Your task to perform on an android device: Show me the alarms in the clock app Image 0: 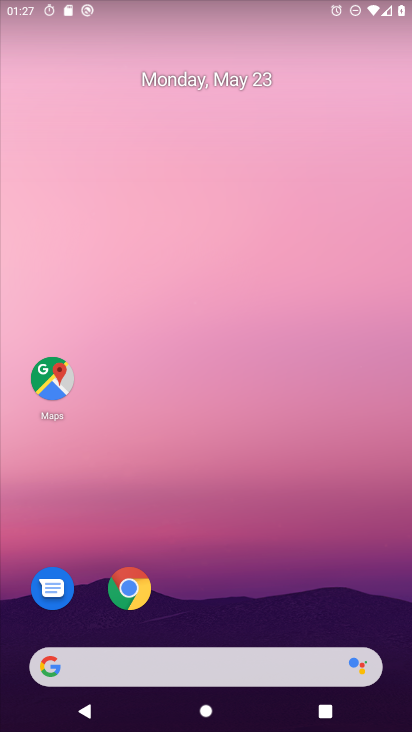
Step 0: drag from (252, 679) to (208, 104)
Your task to perform on an android device: Show me the alarms in the clock app Image 1: 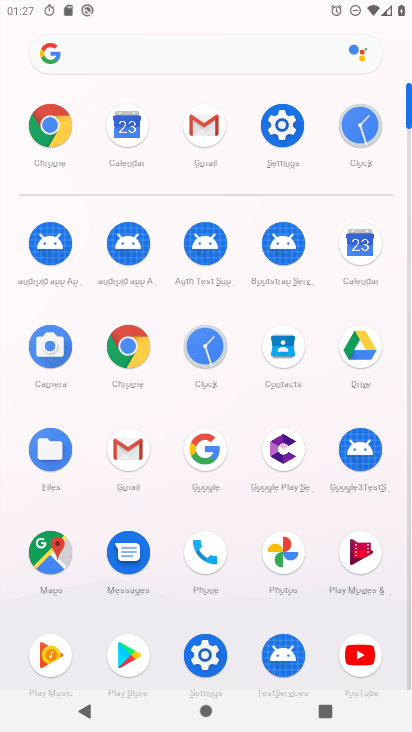
Step 1: click (197, 356)
Your task to perform on an android device: Show me the alarms in the clock app Image 2: 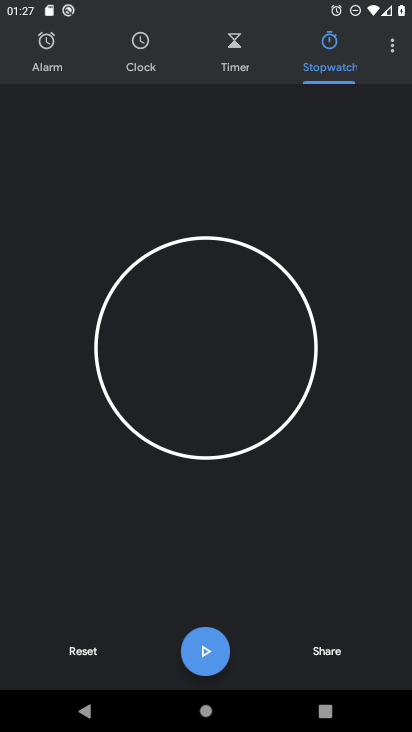
Step 2: click (52, 41)
Your task to perform on an android device: Show me the alarms in the clock app Image 3: 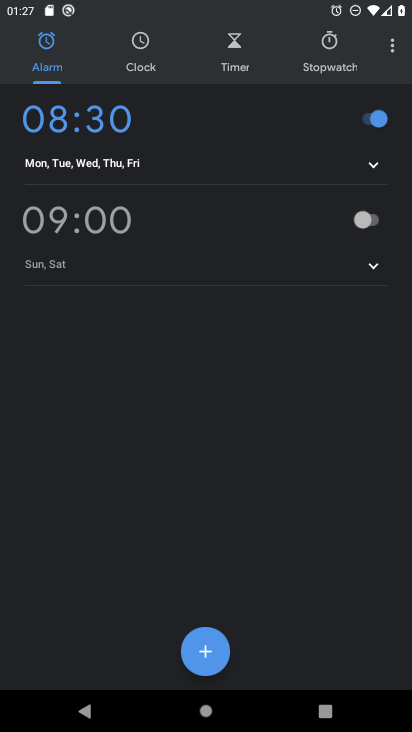
Step 3: click (104, 131)
Your task to perform on an android device: Show me the alarms in the clock app Image 4: 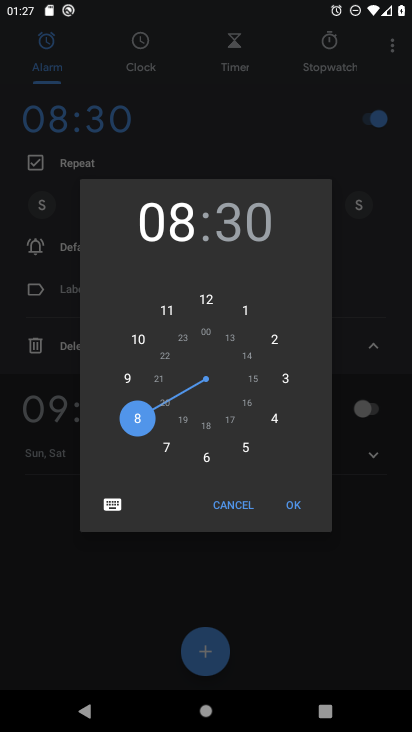
Step 4: click (292, 511)
Your task to perform on an android device: Show me the alarms in the clock app Image 5: 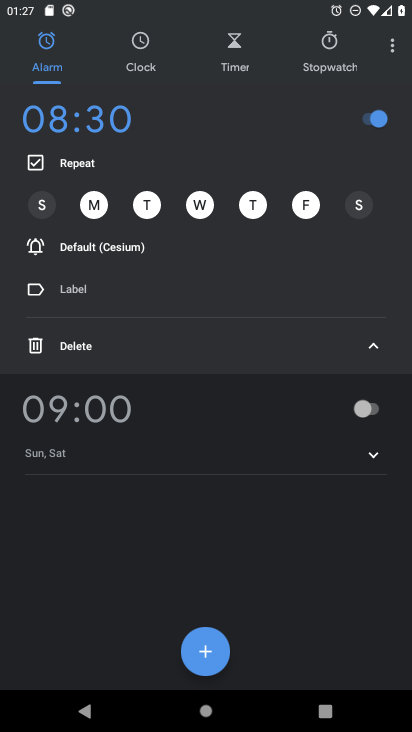
Step 5: task complete